Your task to perform on an android device: turn off priority inbox in the gmail app Image 0: 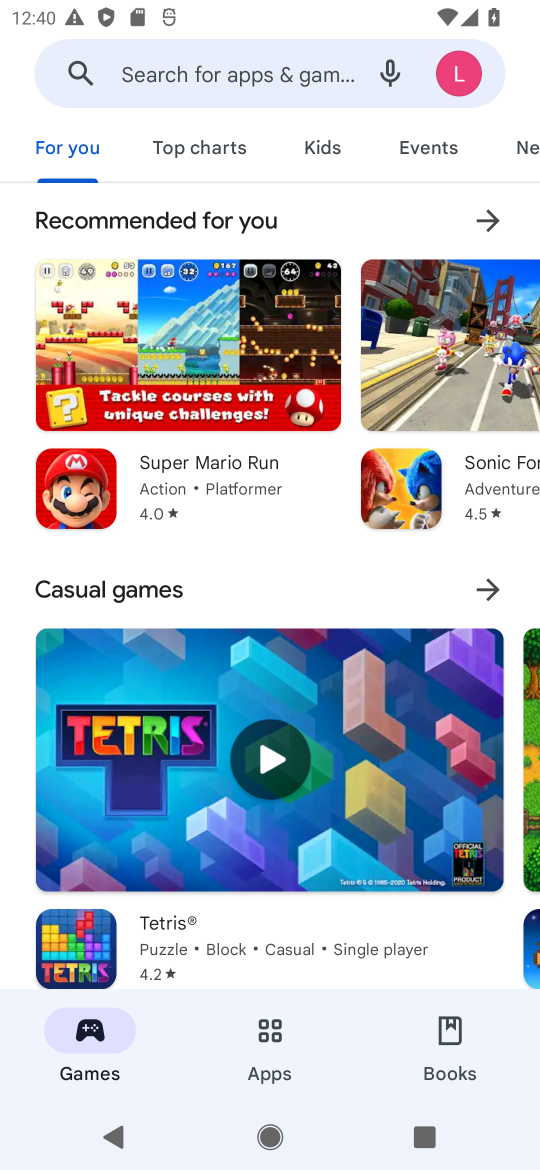
Step 0: press back button
Your task to perform on an android device: turn off priority inbox in the gmail app Image 1: 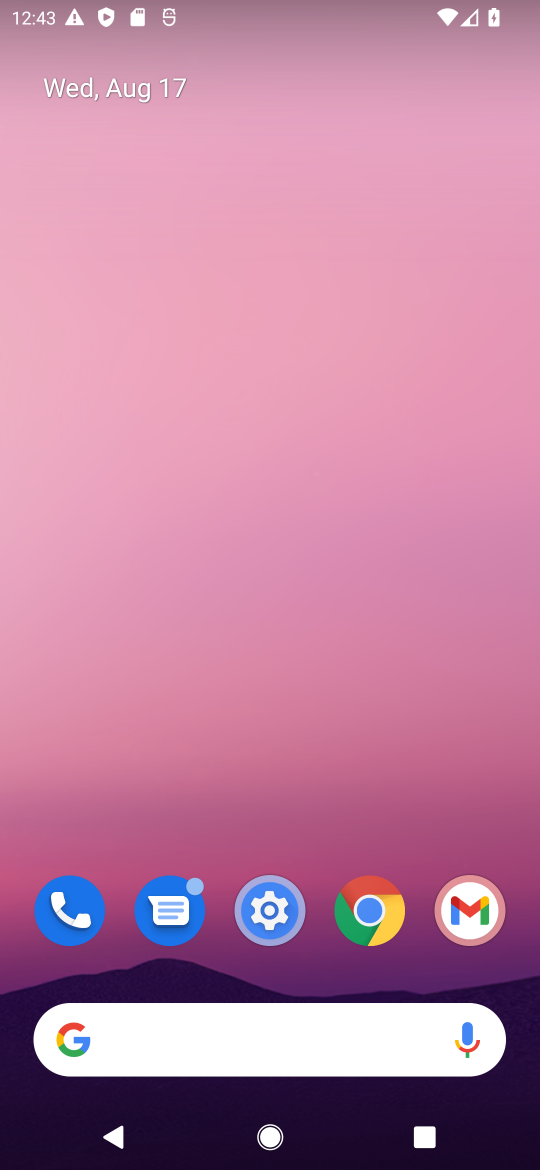
Step 1: click (460, 910)
Your task to perform on an android device: turn off priority inbox in the gmail app Image 2: 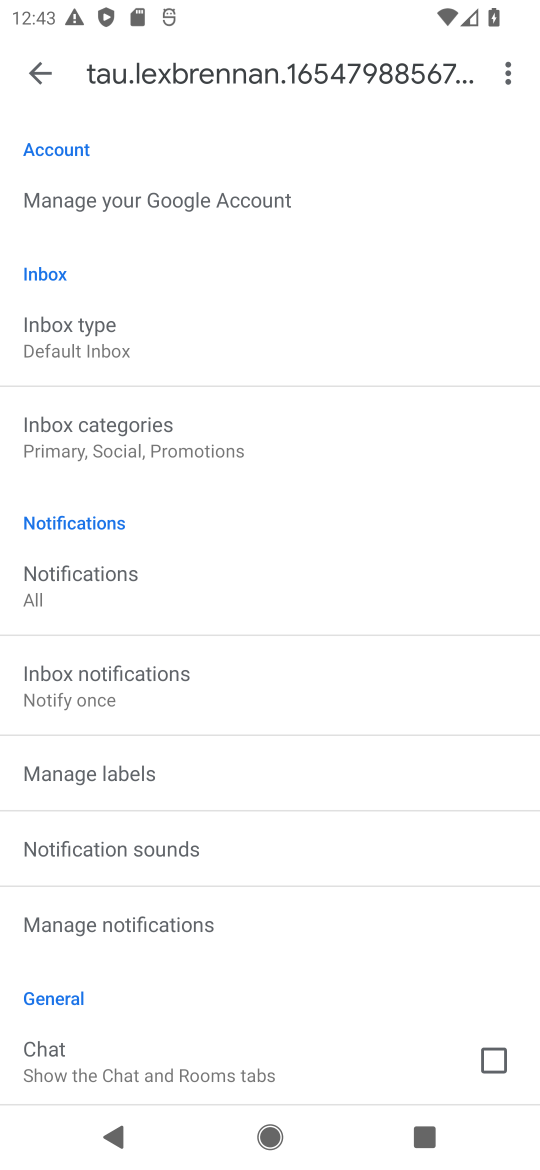
Step 2: click (107, 348)
Your task to perform on an android device: turn off priority inbox in the gmail app Image 3: 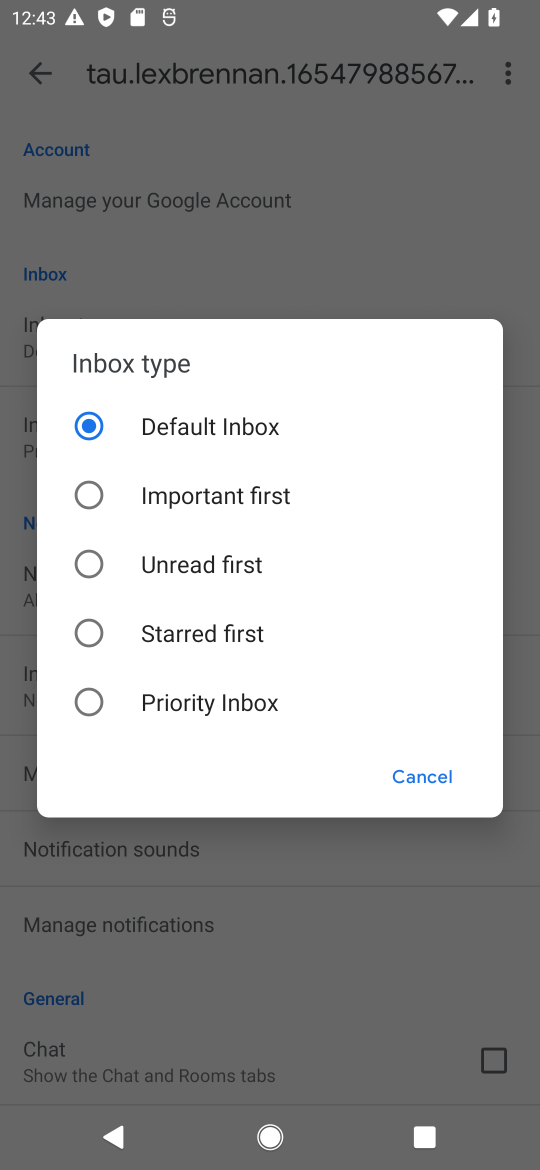
Step 3: task complete